Your task to perform on an android device: check data usage Image 0: 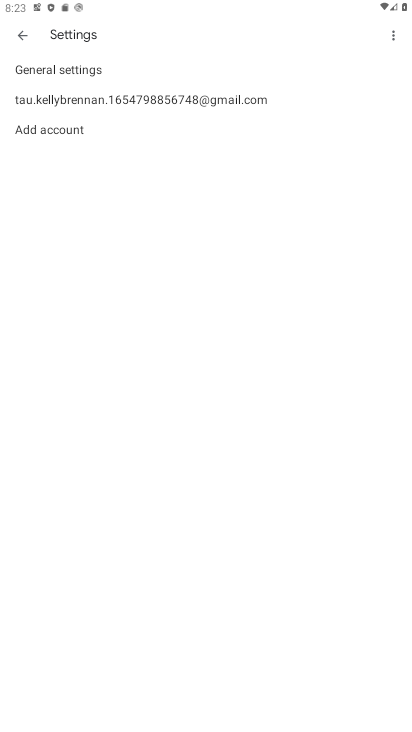
Step 0: press home button
Your task to perform on an android device: check data usage Image 1: 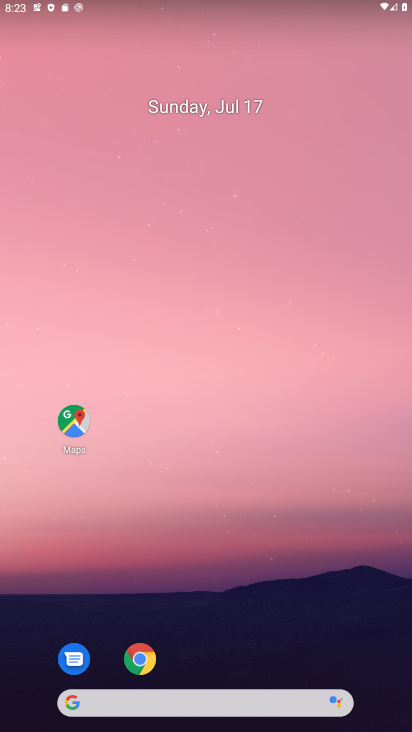
Step 1: drag from (199, 665) to (271, 160)
Your task to perform on an android device: check data usage Image 2: 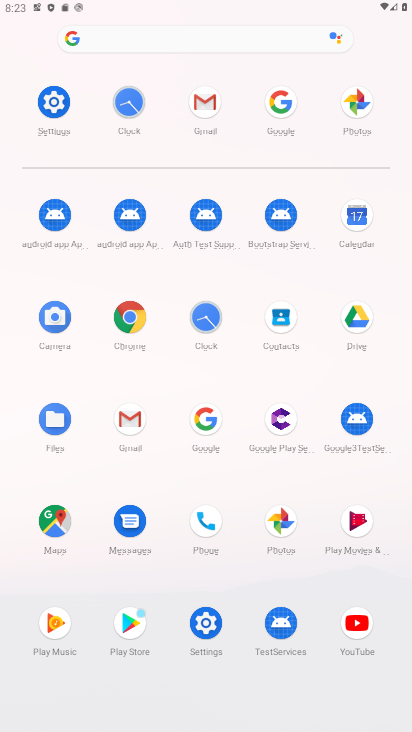
Step 2: click (51, 122)
Your task to perform on an android device: check data usage Image 3: 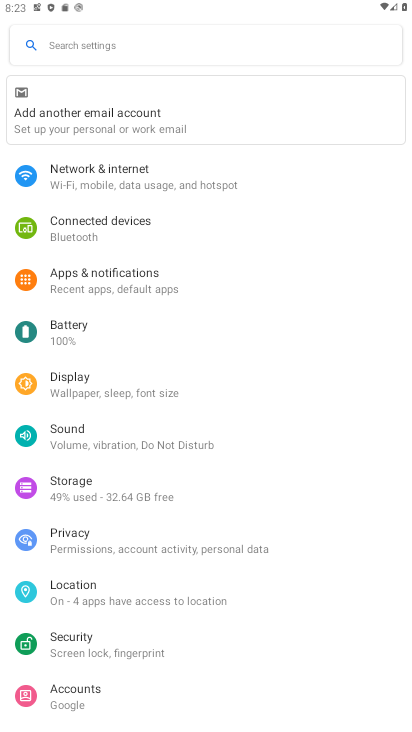
Step 3: click (178, 181)
Your task to perform on an android device: check data usage Image 4: 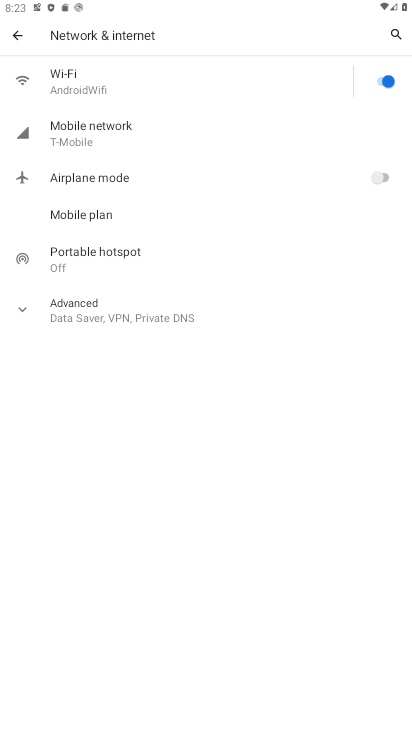
Step 4: click (133, 139)
Your task to perform on an android device: check data usage Image 5: 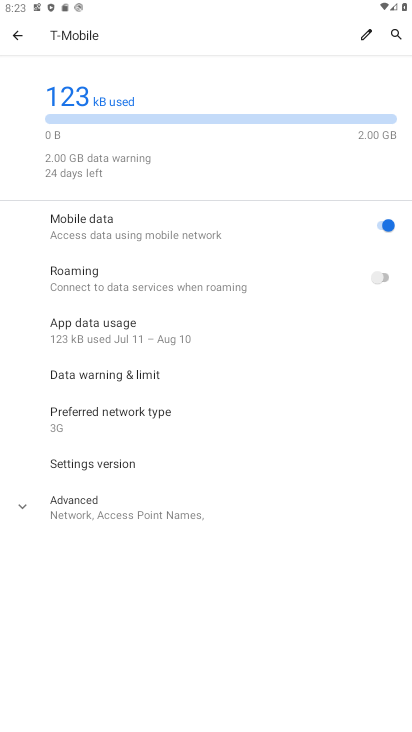
Step 5: click (112, 340)
Your task to perform on an android device: check data usage Image 6: 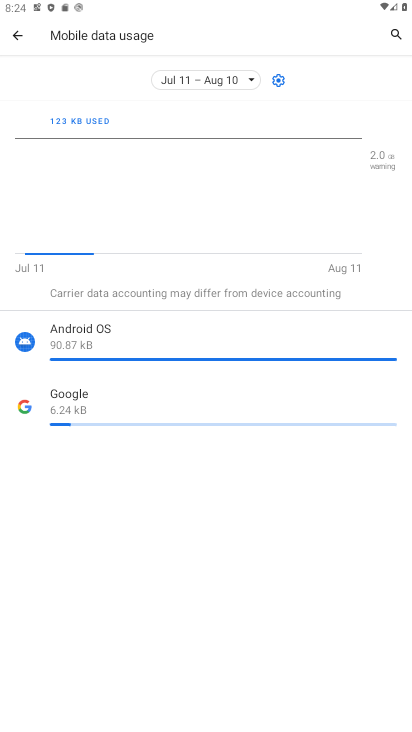
Step 6: task complete